Your task to perform on an android device: star an email in the gmail app Image 0: 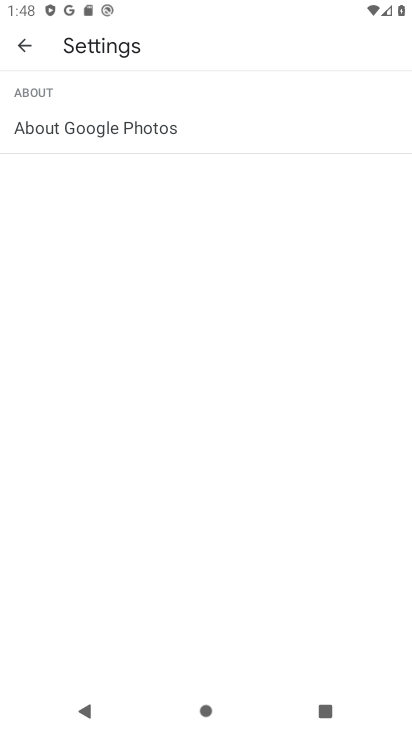
Step 0: press home button
Your task to perform on an android device: star an email in the gmail app Image 1: 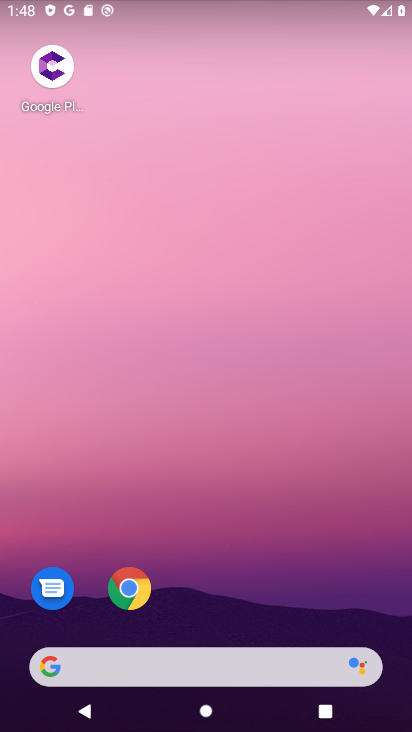
Step 1: drag from (296, 589) to (383, 46)
Your task to perform on an android device: star an email in the gmail app Image 2: 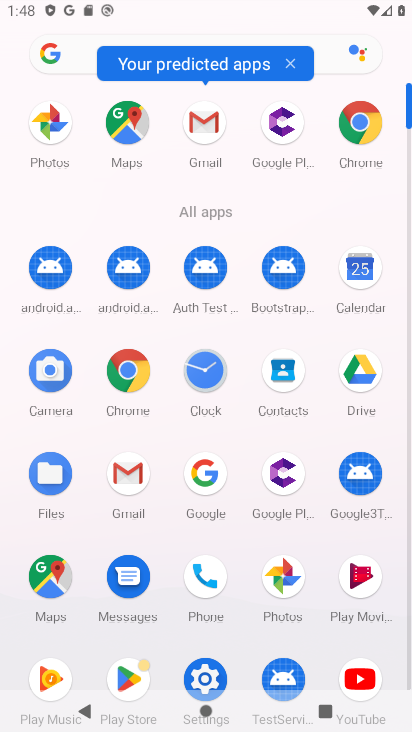
Step 2: click (204, 127)
Your task to perform on an android device: star an email in the gmail app Image 3: 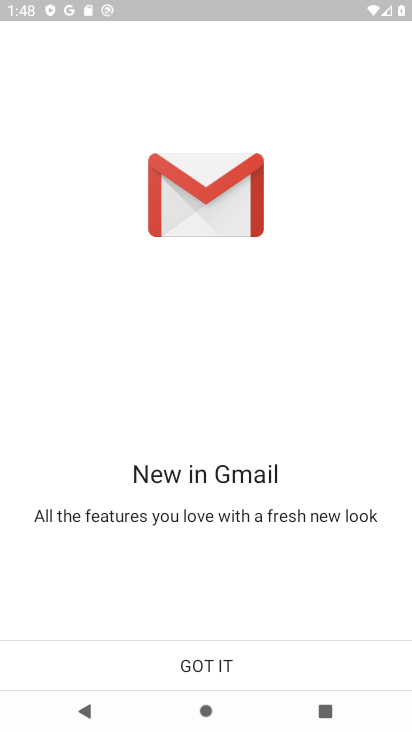
Step 3: click (210, 673)
Your task to perform on an android device: star an email in the gmail app Image 4: 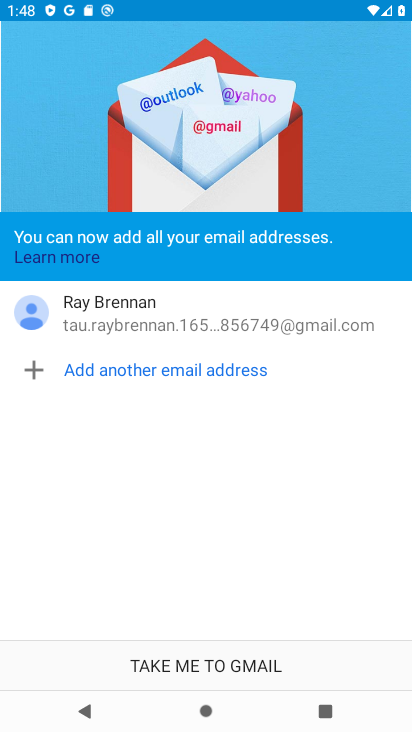
Step 4: click (210, 673)
Your task to perform on an android device: star an email in the gmail app Image 5: 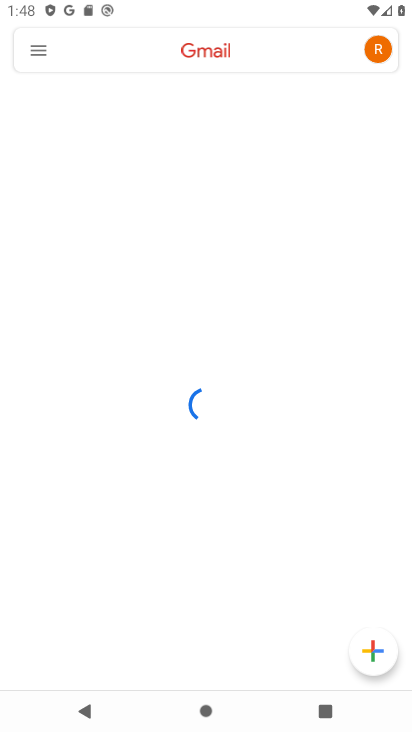
Step 5: click (33, 49)
Your task to perform on an android device: star an email in the gmail app Image 6: 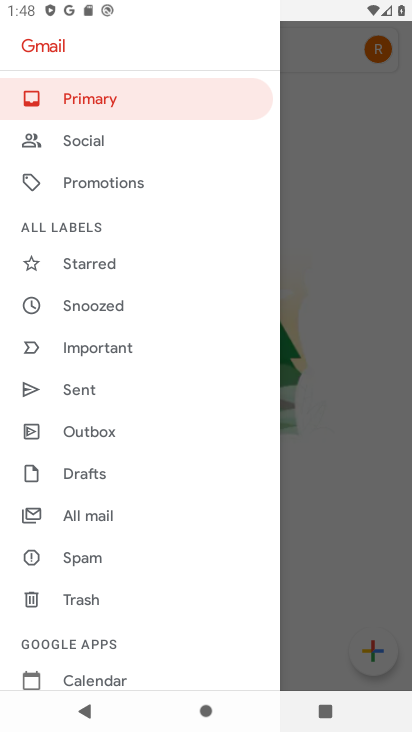
Step 6: click (74, 515)
Your task to perform on an android device: star an email in the gmail app Image 7: 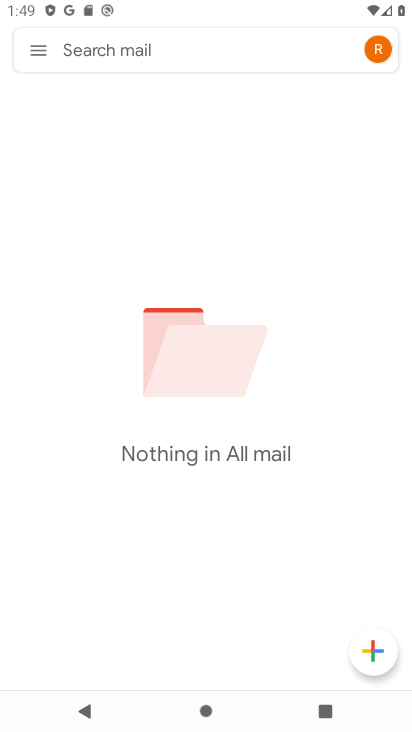
Step 7: task complete